Your task to perform on an android device: Open Google Chrome Image 0: 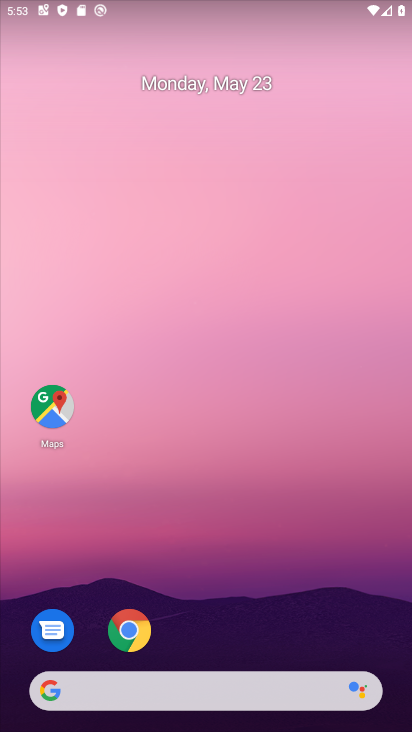
Step 0: drag from (257, 601) to (268, 31)
Your task to perform on an android device: Open Google Chrome Image 1: 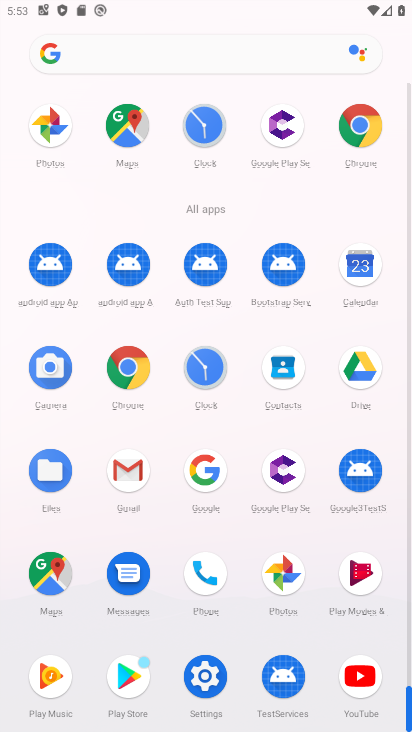
Step 1: click (125, 365)
Your task to perform on an android device: Open Google Chrome Image 2: 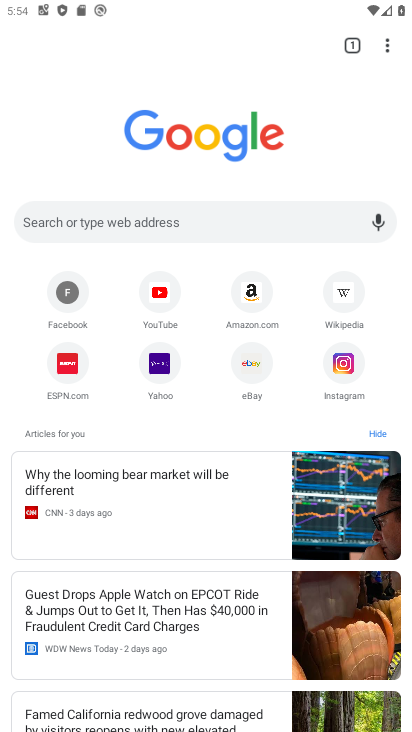
Step 2: task complete